Your task to perform on an android device: turn off smart reply in the gmail app Image 0: 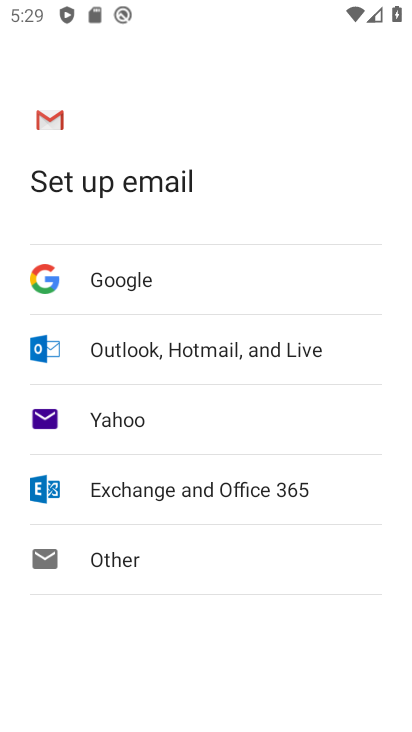
Step 0: press home button
Your task to perform on an android device: turn off smart reply in the gmail app Image 1: 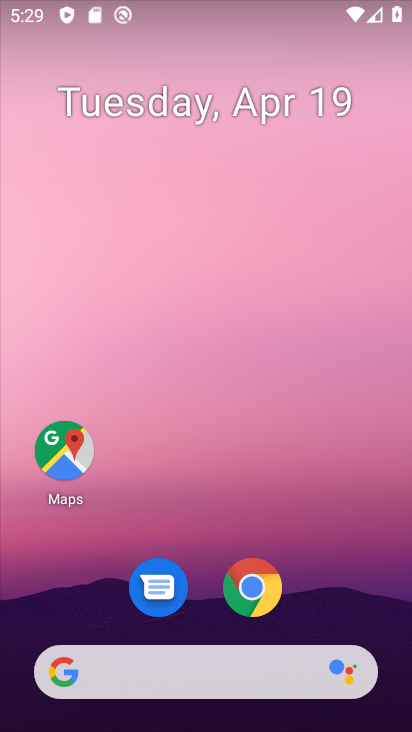
Step 1: drag from (200, 580) to (277, 21)
Your task to perform on an android device: turn off smart reply in the gmail app Image 2: 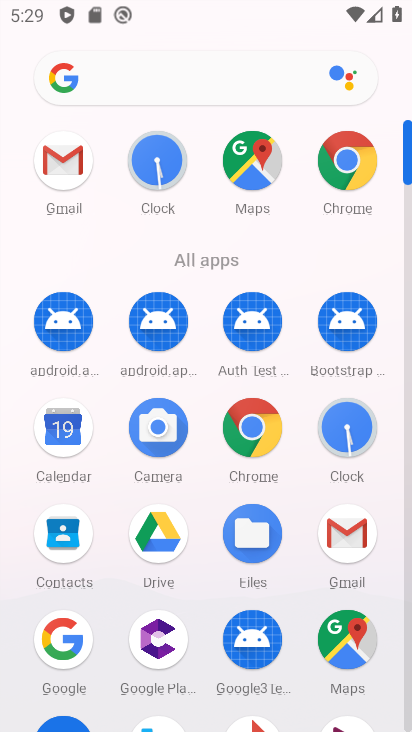
Step 2: click (346, 560)
Your task to perform on an android device: turn off smart reply in the gmail app Image 3: 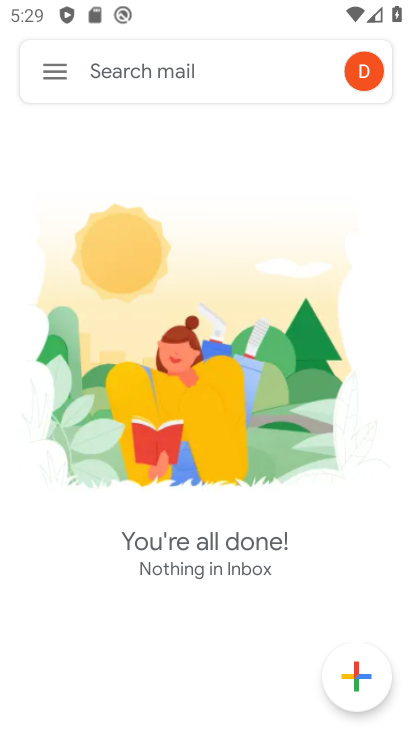
Step 3: click (68, 66)
Your task to perform on an android device: turn off smart reply in the gmail app Image 4: 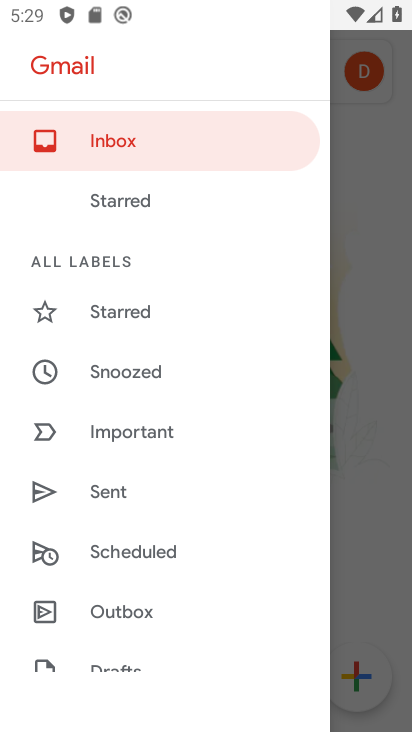
Step 4: drag from (42, 604) to (94, 550)
Your task to perform on an android device: turn off smart reply in the gmail app Image 5: 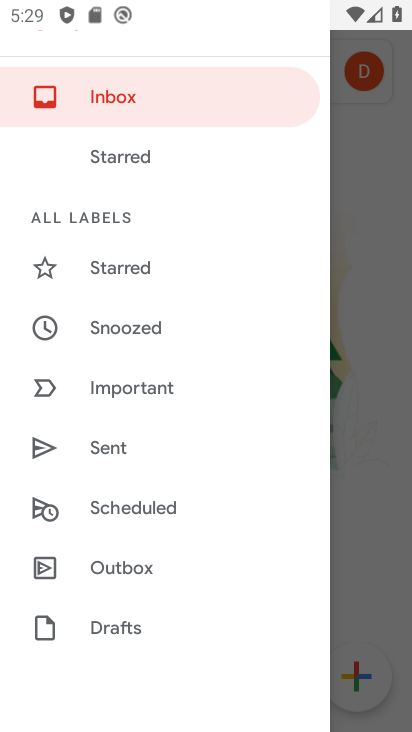
Step 5: drag from (154, 616) to (152, 174)
Your task to perform on an android device: turn off smart reply in the gmail app Image 6: 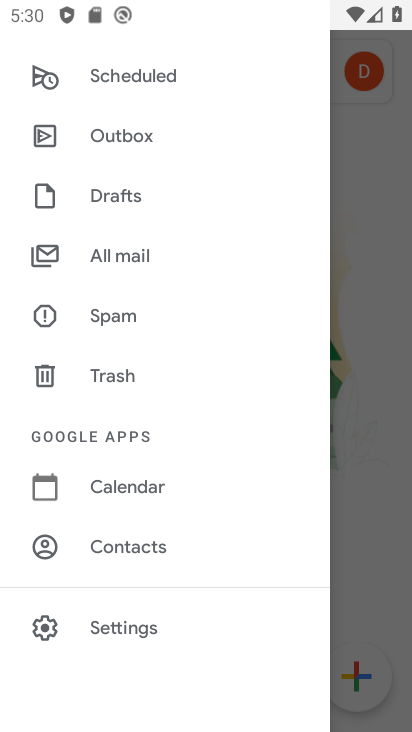
Step 6: click (50, 631)
Your task to perform on an android device: turn off smart reply in the gmail app Image 7: 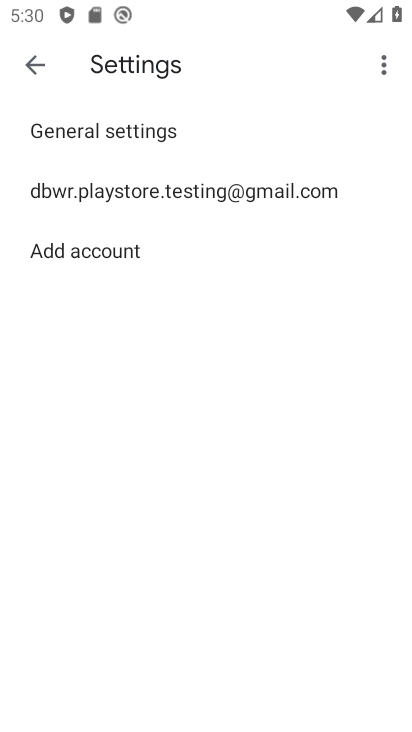
Step 7: click (210, 182)
Your task to perform on an android device: turn off smart reply in the gmail app Image 8: 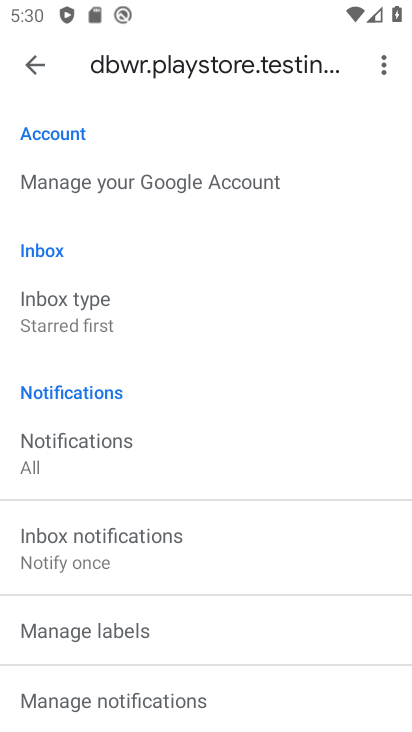
Step 8: drag from (123, 671) to (102, 166)
Your task to perform on an android device: turn off smart reply in the gmail app Image 9: 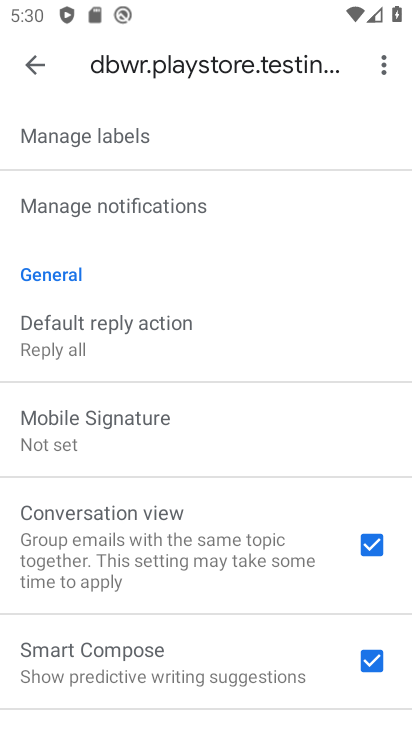
Step 9: drag from (94, 636) to (114, 288)
Your task to perform on an android device: turn off smart reply in the gmail app Image 10: 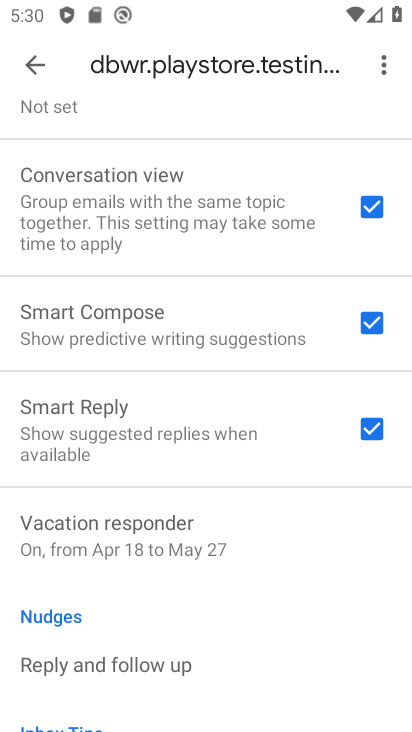
Step 10: click (366, 434)
Your task to perform on an android device: turn off smart reply in the gmail app Image 11: 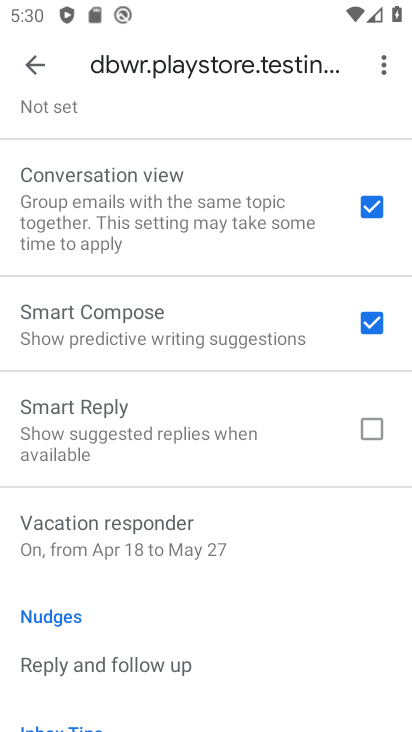
Step 11: task complete